Your task to perform on an android device: Go to wifi settings Image 0: 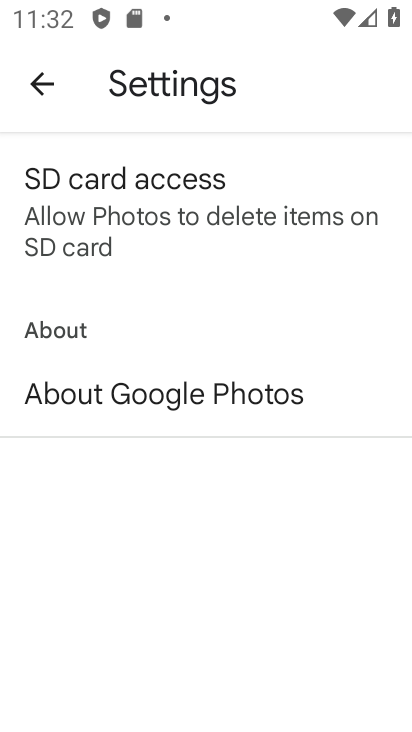
Step 0: press home button
Your task to perform on an android device: Go to wifi settings Image 1: 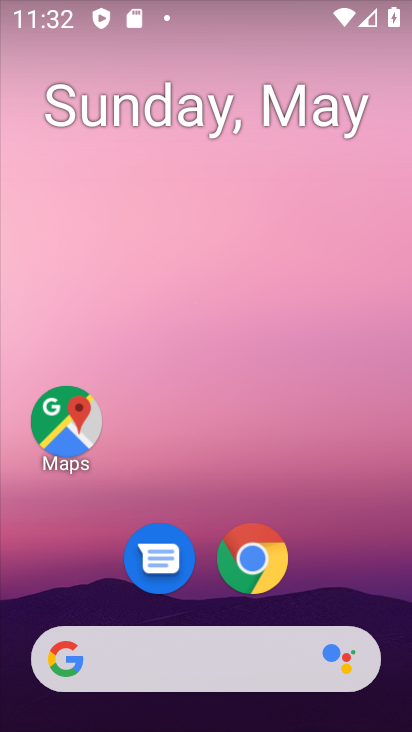
Step 1: drag from (340, 572) to (357, 106)
Your task to perform on an android device: Go to wifi settings Image 2: 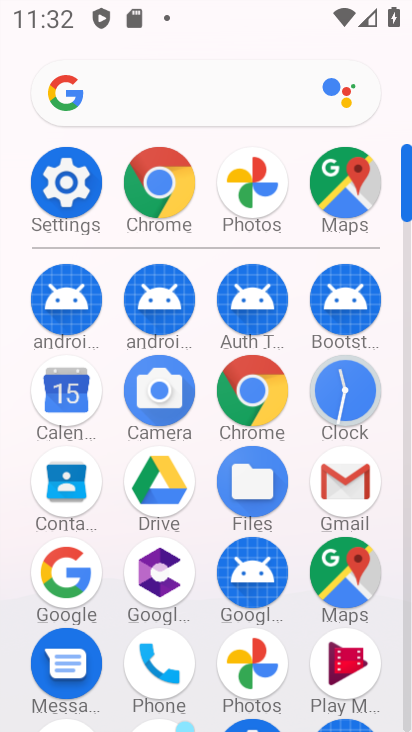
Step 2: click (78, 174)
Your task to perform on an android device: Go to wifi settings Image 3: 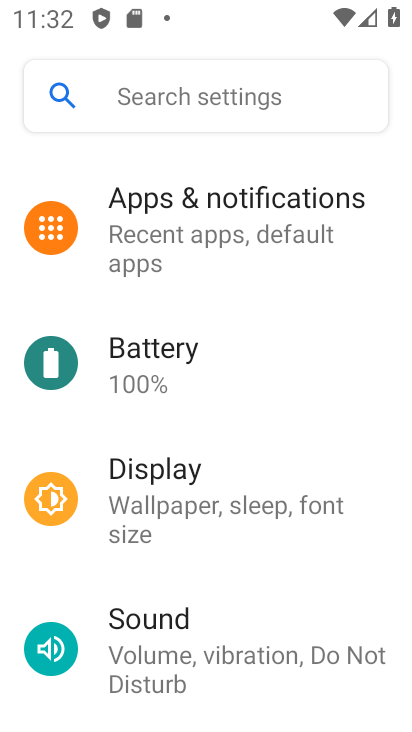
Step 3: drag from (289, 588) to (294, 413)
Your task to perform on an android device: Go to wifi settings Image 4: 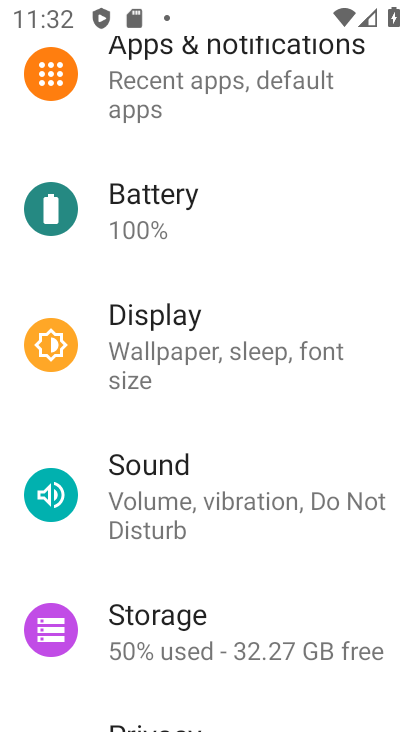
Step 4: drag from (306, 600) to (327, 335)
Your task to perform on an android device: Go to wifi settings Image 5: 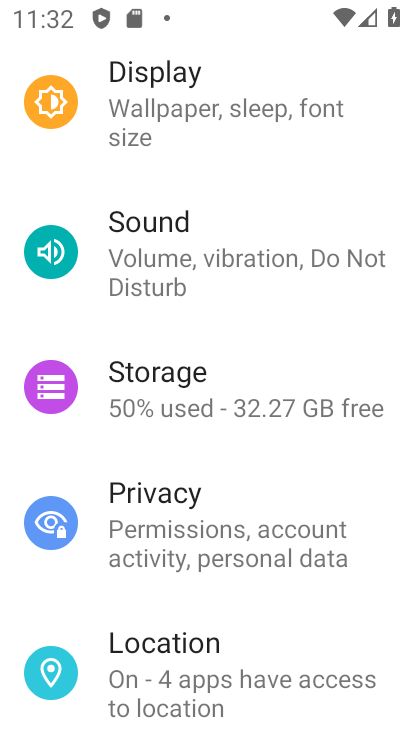
Step 5: drag from (328, 632) to (343, 357)
Your task to perform on an android device: Go to wifi settings Image 6: 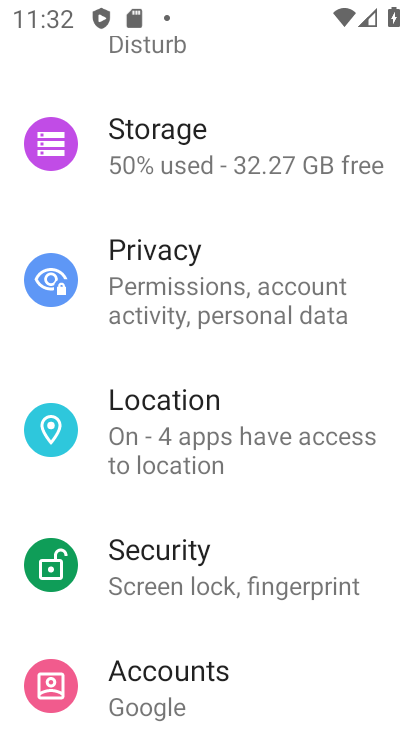
Step 6: drag from (324, 678) to (368, 319)
Your task to perform on an android device: Go to wifi settings Image 7: 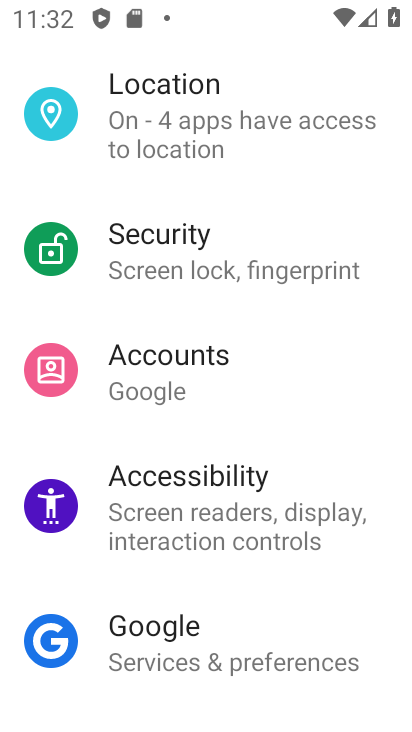
Step 7: drag from (386, 209) to (375, 407)
Your task to perform on an android device: Go to wifi settings Image 8: 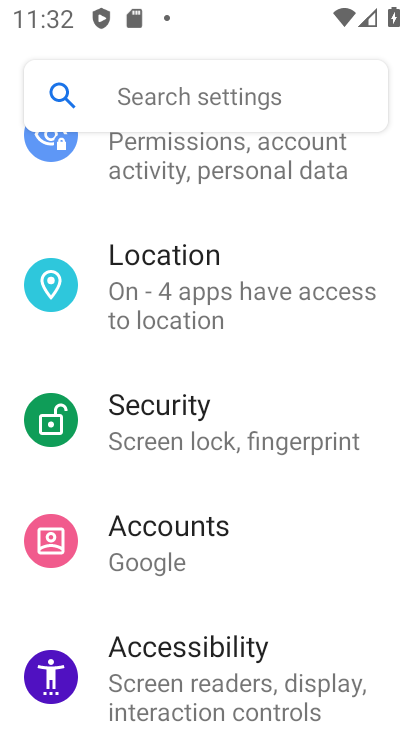
Step 8: drag from (384, 189) to (370, 360)
Your task to perform on an android device: Go to wifi settings Image 9: 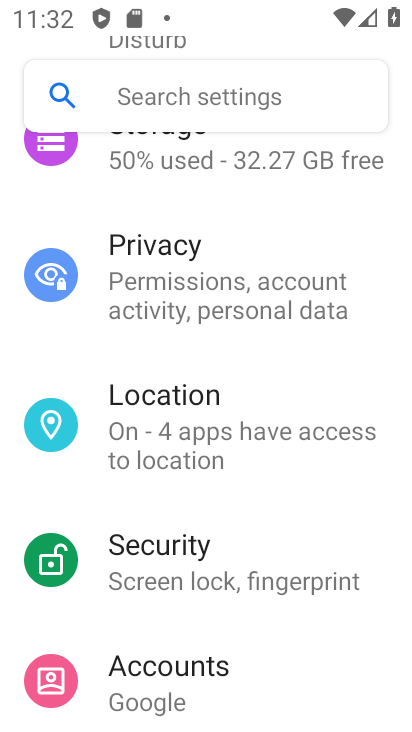
Step 9: drag from (352, 192) to (358, 379)
Your task to perform on an android device: Go to wifi settings Image 10: 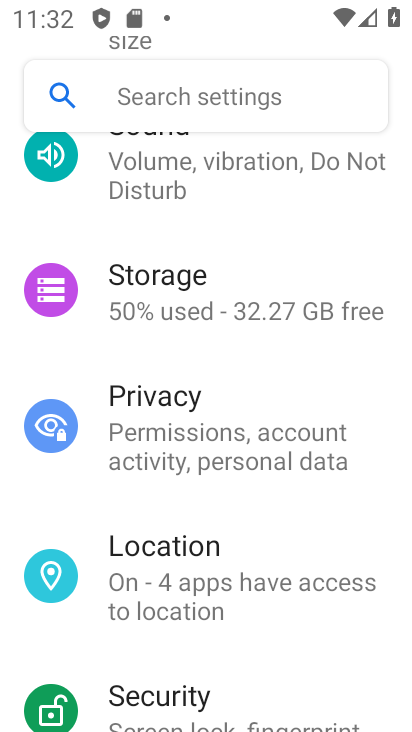
Step 10: drag from (368, 186) to (349, 408)
Your task to perform on an android device: Go to wifi settings Image 11: 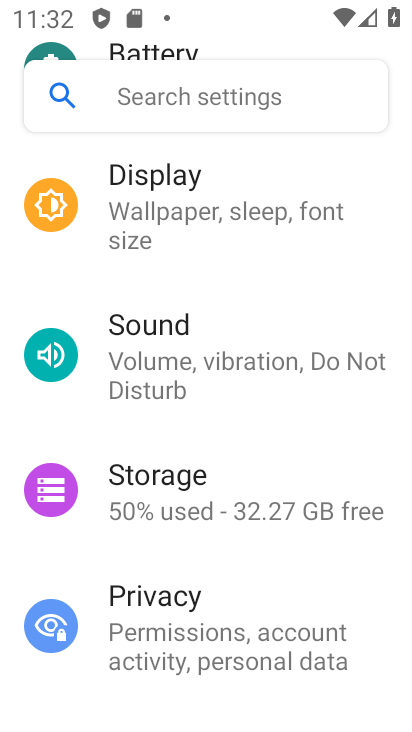
Step 11: drag from (355, 170) to (349, 392)
Your task to perform on an android device: Go to wifi settings Image 12: 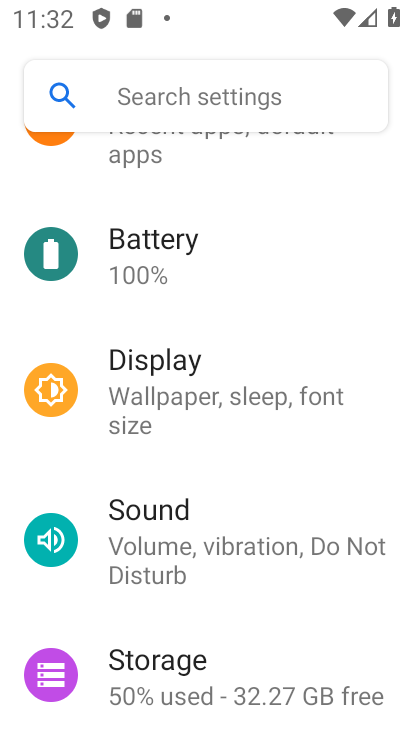
Step 12: drag from (332, 190) to (308, 413)
Your task to perform on an android device: Go to wifi settings Image 13: 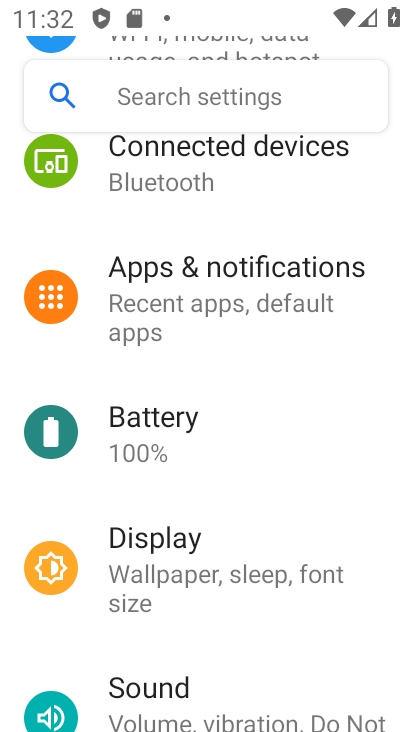
Step 13: drag from (315, 204) to (304, 500)
Your task to perform on an android device: Go to wifi settings Image 14: 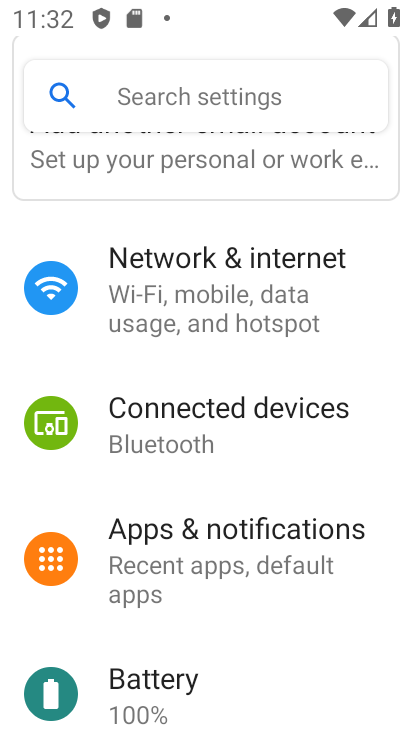
Step 14: click (231, 288)
Your task to perform on an android device: Go to wifi settings Image 15: 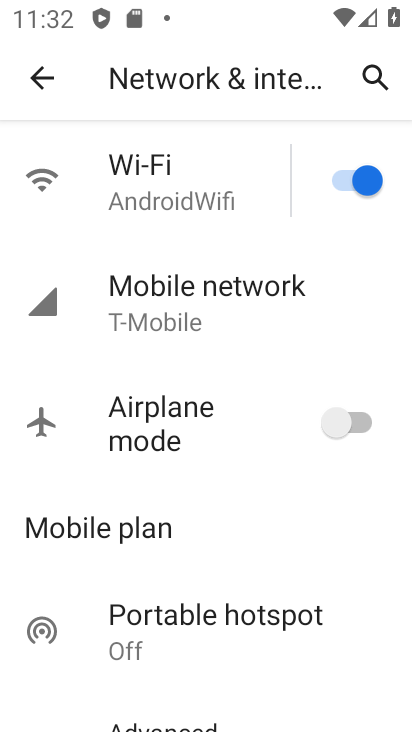
Step 15: click (169, 170)
Your task to perform on an android device: Go to wifi settings Image 16: 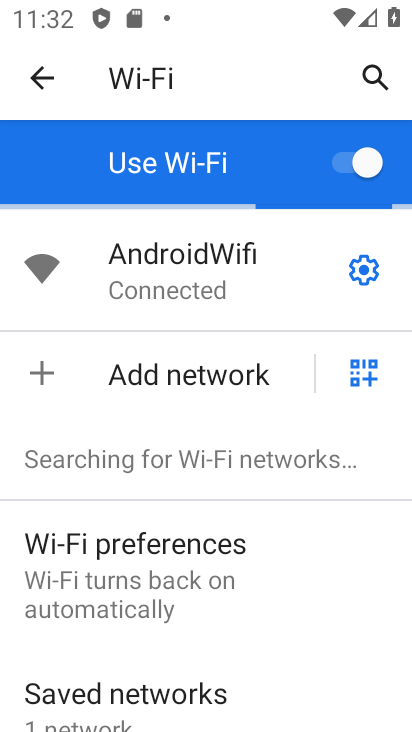
Step 16: task complete